Your task to perform on an android device: Search for logitech g pro on target.com, select the first entry, add it to the cart, then select checkout. Image 0: 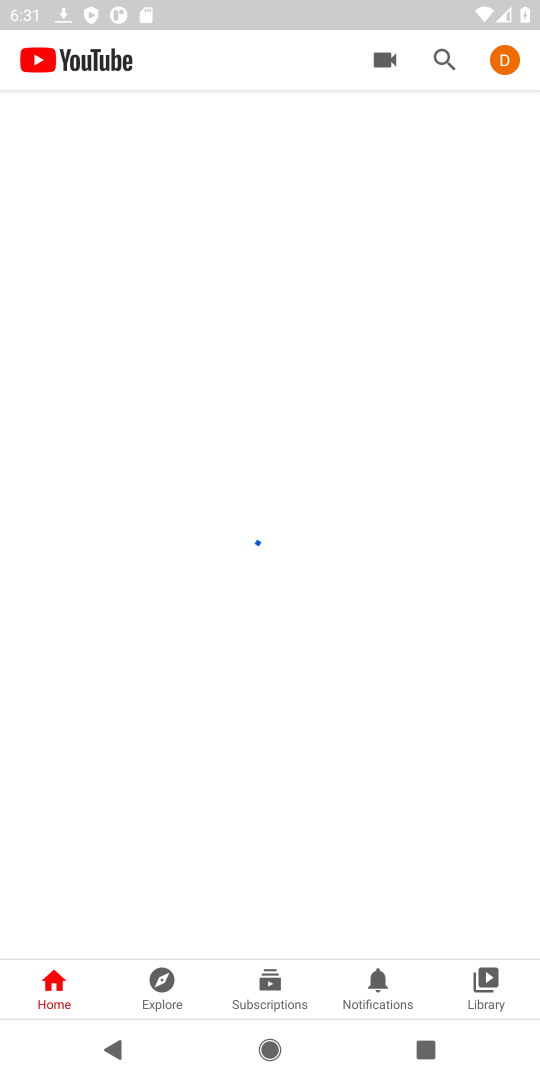
Step 0: press home button
Your task to perform on an android device: Search for logitech g pro on target.com, select the first entry, add it to the cart, then select checkout. Image 1: 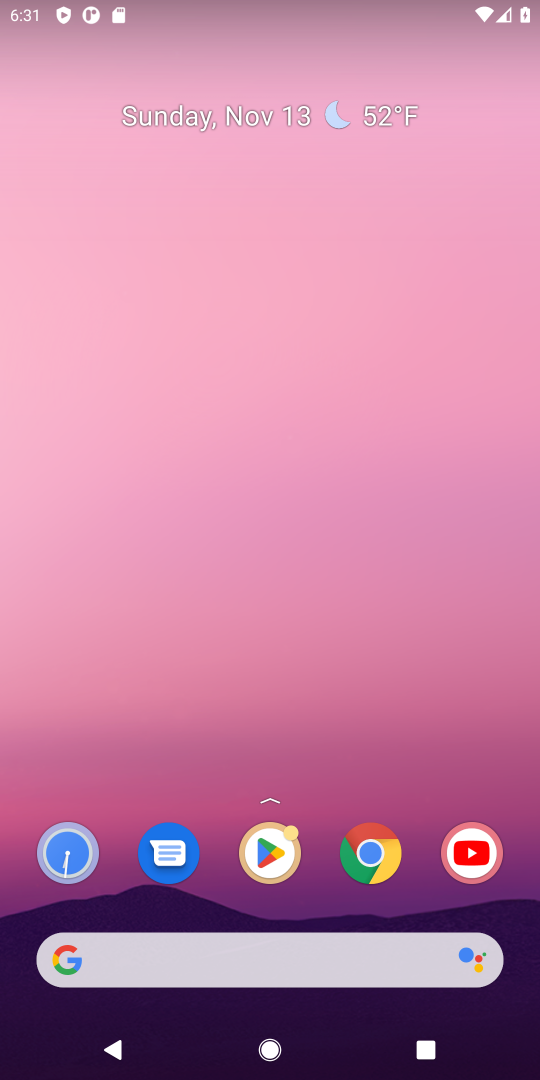
Step 1: click (150, 955)
Your task to perform on an android device: Search for logitech g pro on target.com, select the first entry, add it to the cart, then select checkout. Image 2: 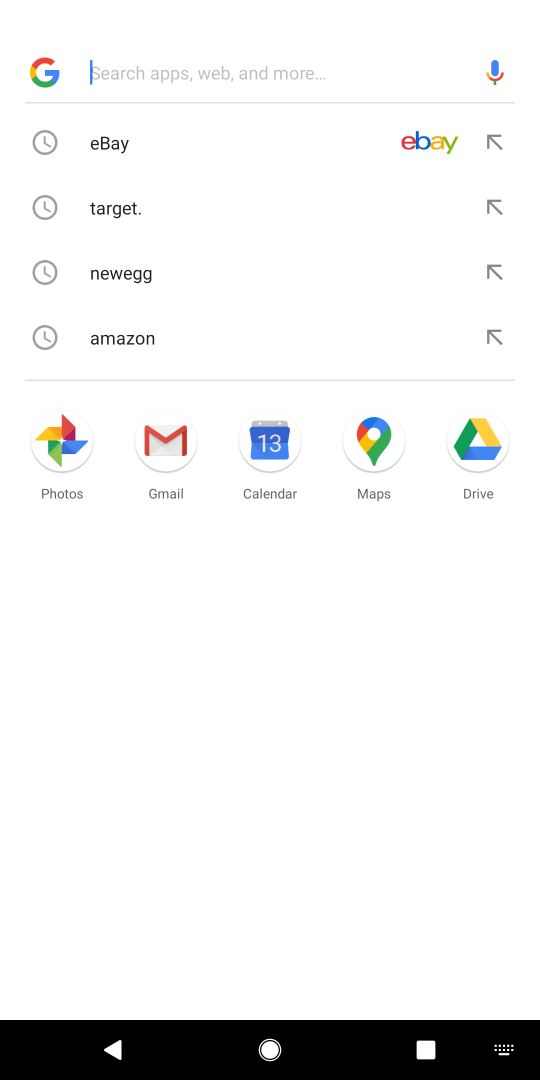
Step 2: type "target.com"
Your task to perform on an android device: Search for logitech g pro on target.com, select the first entry, add it to the cart, then select checkout. Image 3: 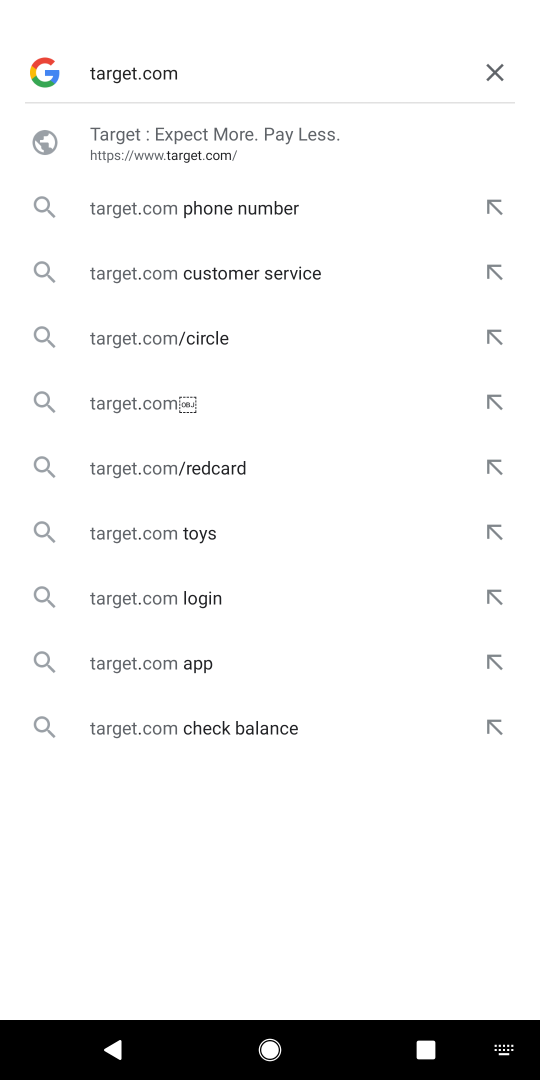
Step 3: press enter
Your task to perform on an android device: Search for logitech g pro on target.com, select the first entry, add it to the cart, then select checkout. Image 4: 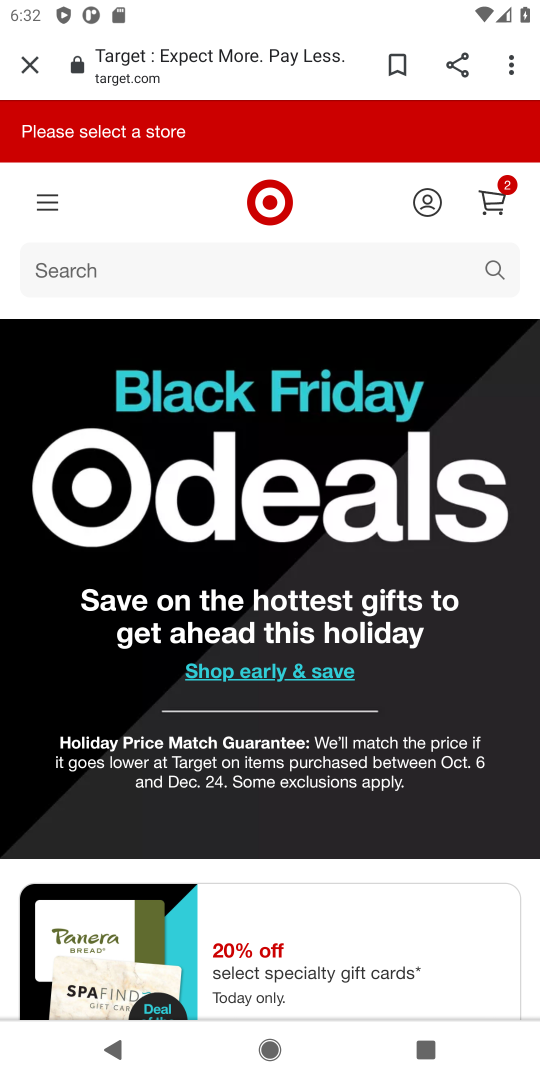
Step 4: click (80, 265)
Your task to perform on an android device: Search for logitech g pro on target.com, select the first entry, add it to the cart, then select checkout. Image 5: 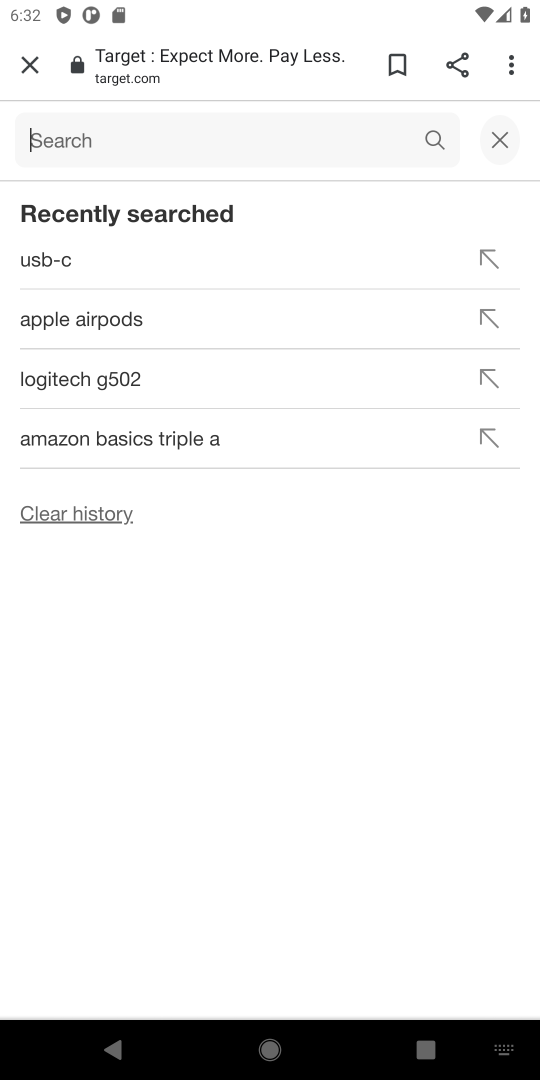
Step 5: type "logitech g pro"
Your task to perform on an android device: Search for logitech g pro on target.com, select the first entry, add it to the cart, then select checkout. Image 6: 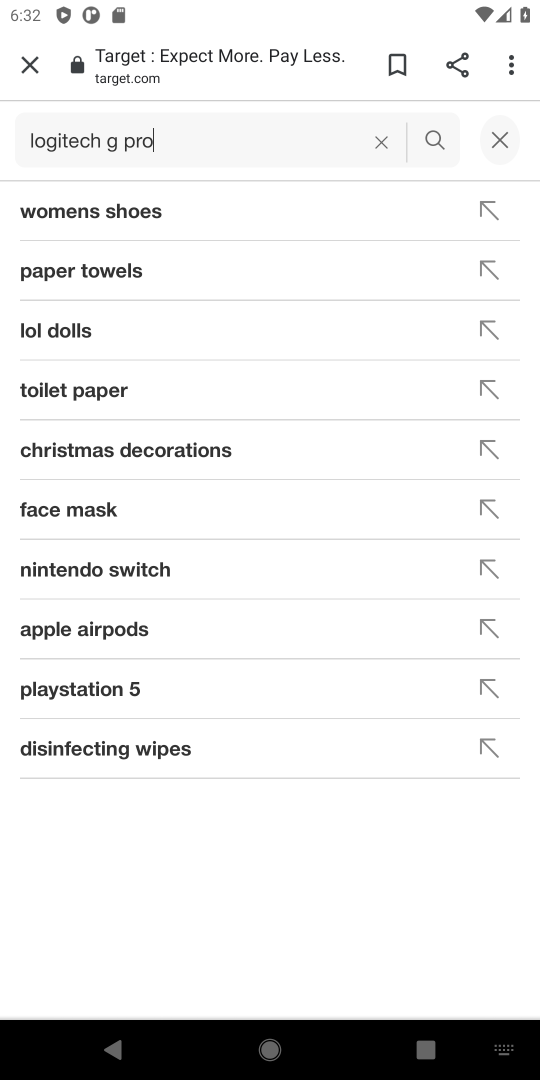
Step 6: press enter
Your task to perform on an android device: Search for logitech g pro on target.com, select the first entry, add it to the cart, then select checkout. Image 7: 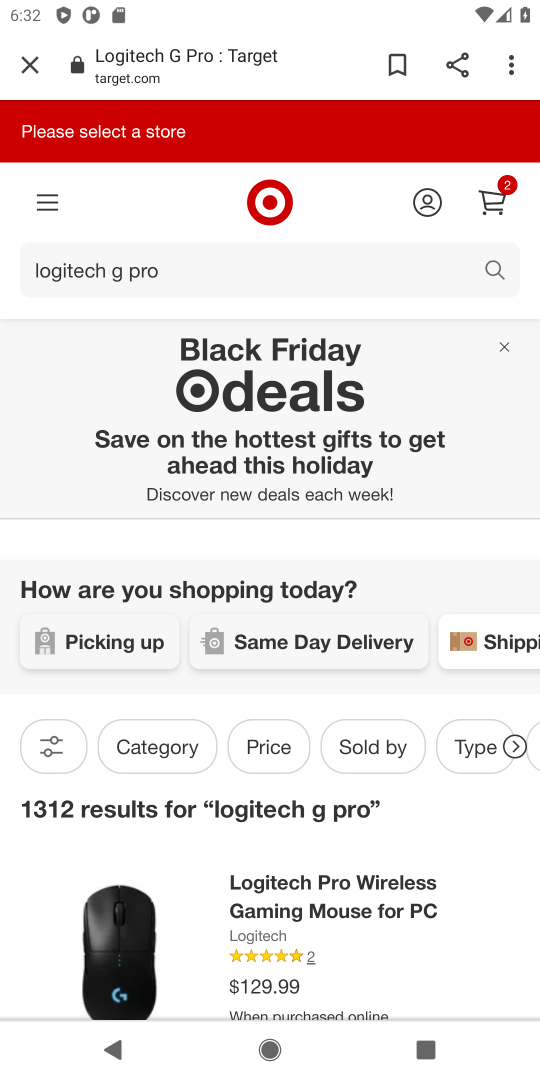
Step 7: drag from (341, 946) to (343, 405)
Your task to perform on an android device: Search for logitech g pro on target.com, select the first entry, add it to the cart, then select checkout. Image 8: 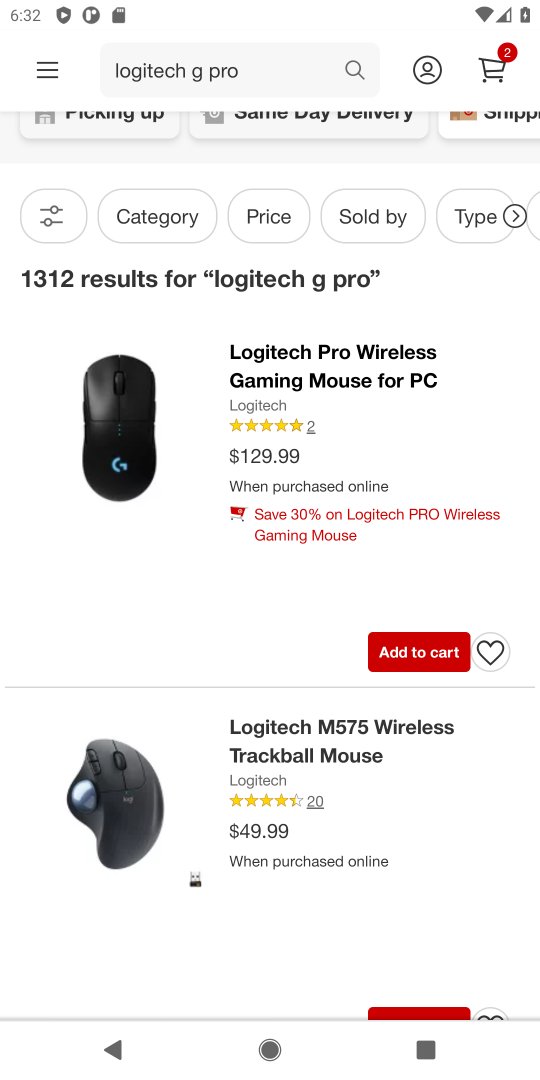
Step 8: drag from (318, 838) to (306, 563)
Your task to perform on an android device: Search for logitech g pro on target.com, select the first entry, add it to the cart, then select checkout. Image 9: 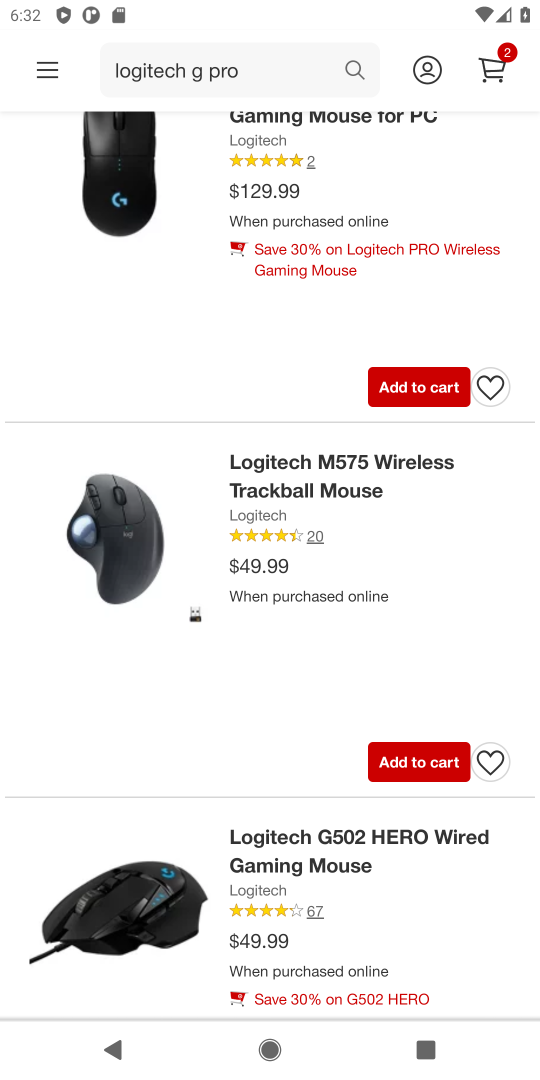
Step 9: drag from (293, 264) to (284, 483)
Your task to perform on an android device: Search for logitech g pro on target.com, select the first entry, add it to the cart, then select checkout. Image 10: 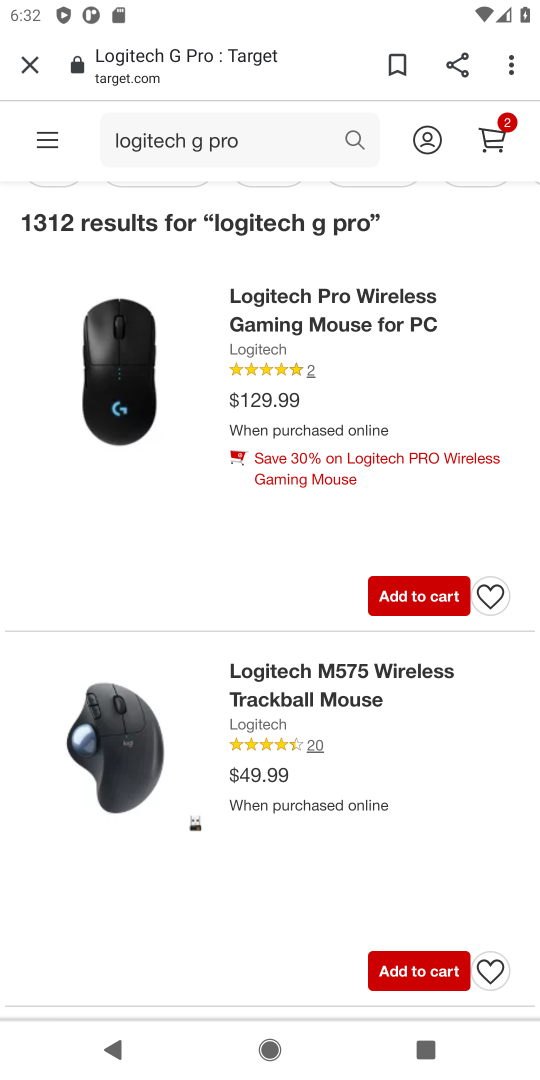
Step 10: click (436, 607)
Your task to perform on an android device: Search for logitech g pro on target.com, select the first entry, add it to the cart, then select checkout. Image 11: 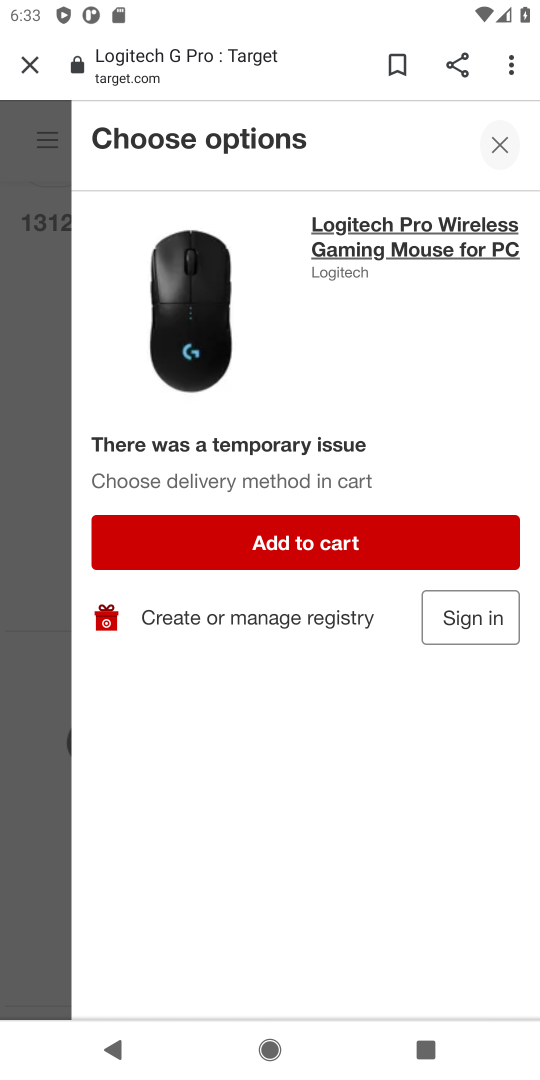
Step 11: click (320, 550)
Your task to perform on an android device: Search for logitech g pro on target.com, select the first entry, add it to the cart, then select checkout. Image 12: 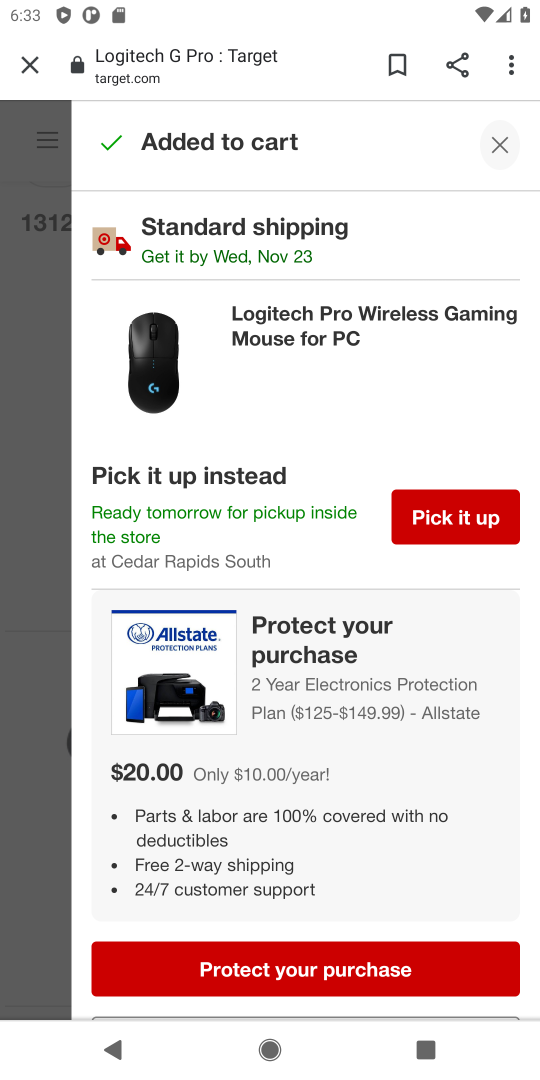
Step 12: click (330, 980)
Your task to perform on an android device: Search for logitech g pro on target.com, select the first entry, add it to the cart, then select checkout. Image 13: 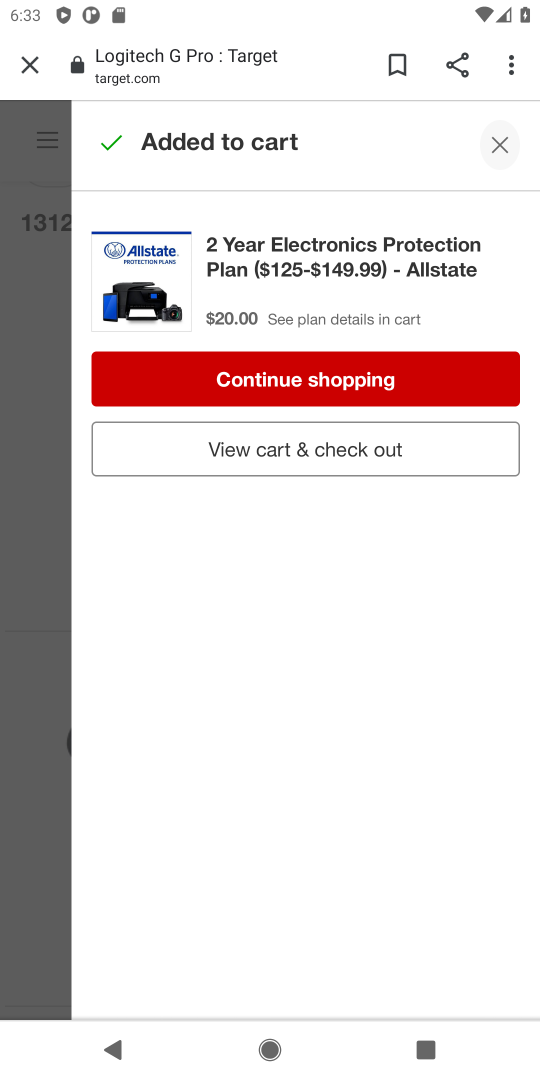
Step 13: click (313, 446)
Your task to perform on an android device: Search for logitech g pro on target.com, select the first entry, add it to the cart, then select checkout. Image 14: 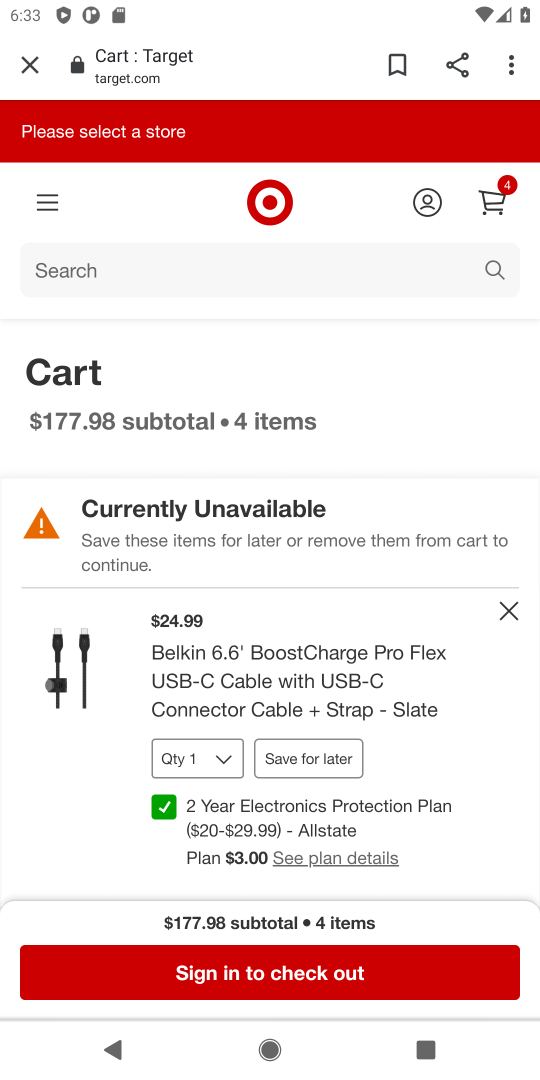
Step 14: click (297, 981)
Your task to perform on an android device: Search for logitech g pro on target.com, select the first entry, add it to the cart, then select checkout. Image 15: 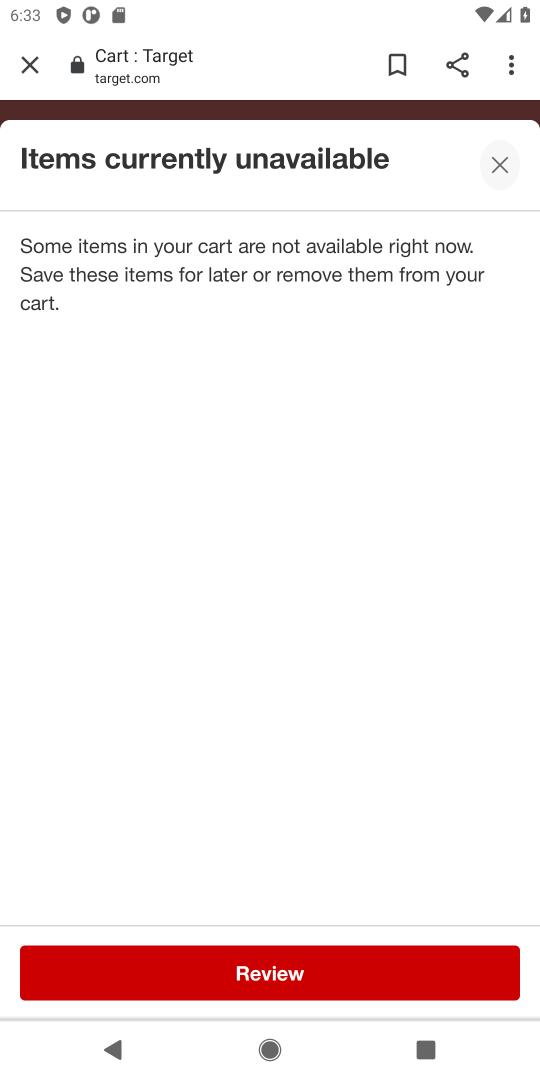
Step 15: task complete